Your task to perform on an android device: move a message to another label in the gmail app Image 0: 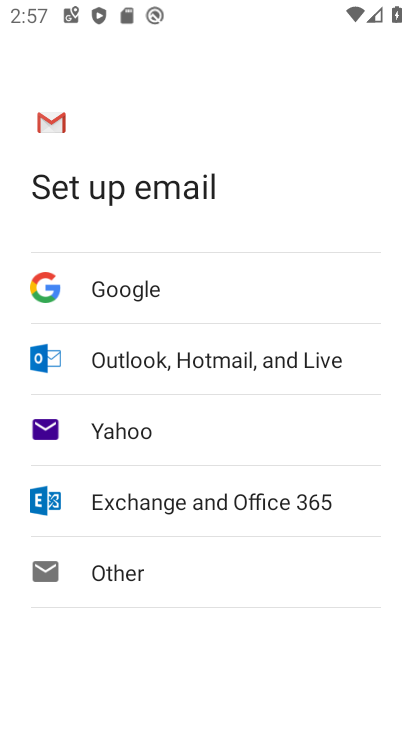
Step 0: press home button
Your task to perform on an android device: move a message to another label in the gmail app Image 1: 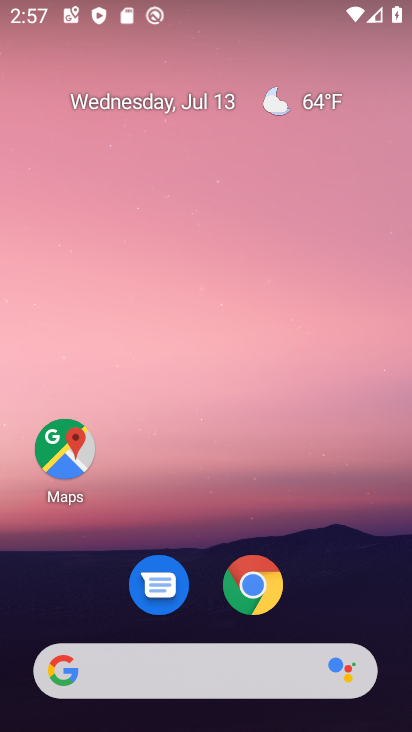
Step 1: drag from (244, 670) to (348, 119)
Your task to perform on an android device: move a message to another label in the gmail app Image 2: 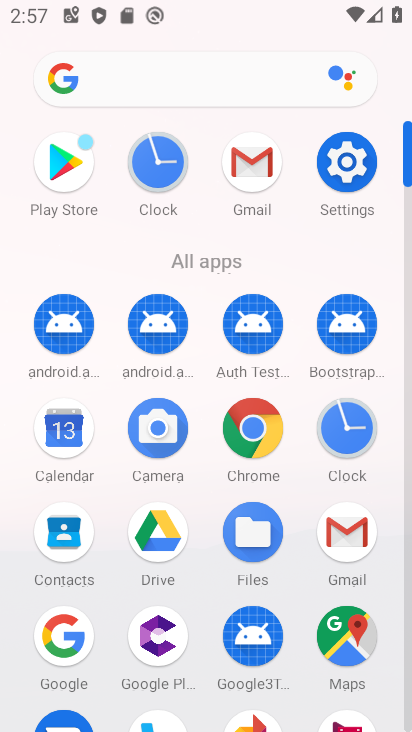
Step 2: click (262, 168)
Your task to perform on an android device: move a message to another label in the gmail app Image 3: 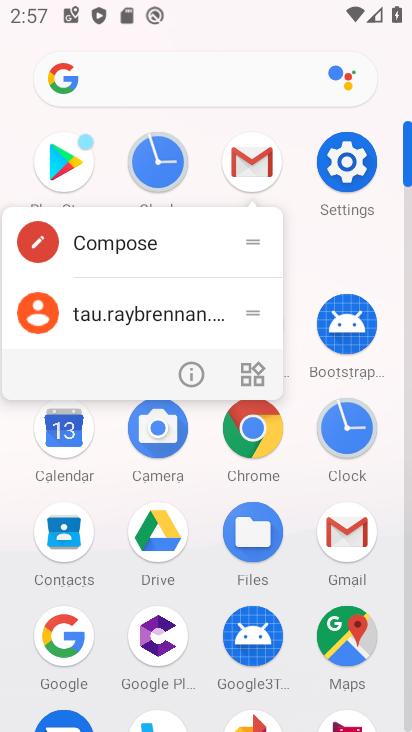
Step 3: click (258, 168)
Your task to perform on an android device: move a message to another label in the gmail app Image 4: 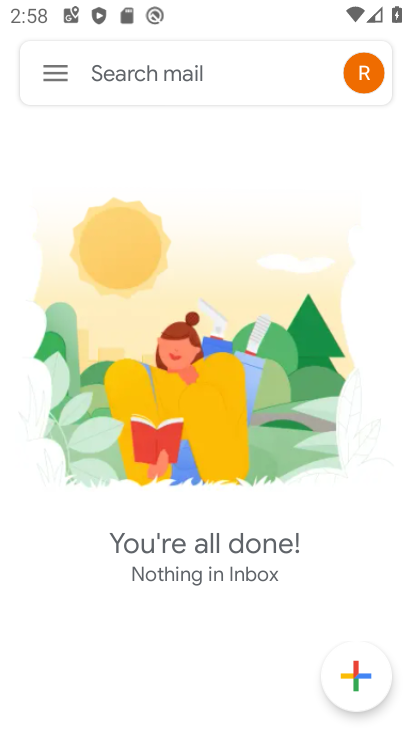
Step 4: task complete